Your task to perform on an android device: turn notification dots off Image 0: 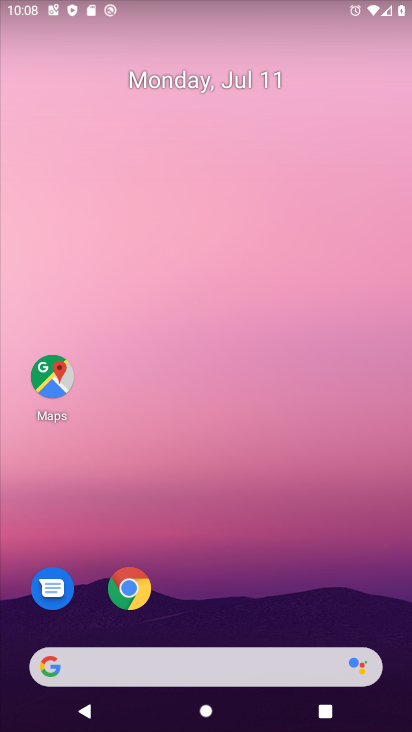
Step 0: drag from (233, 435) to (304, 23)
Your task to perform on an android device: turn notification dots off Image 1: 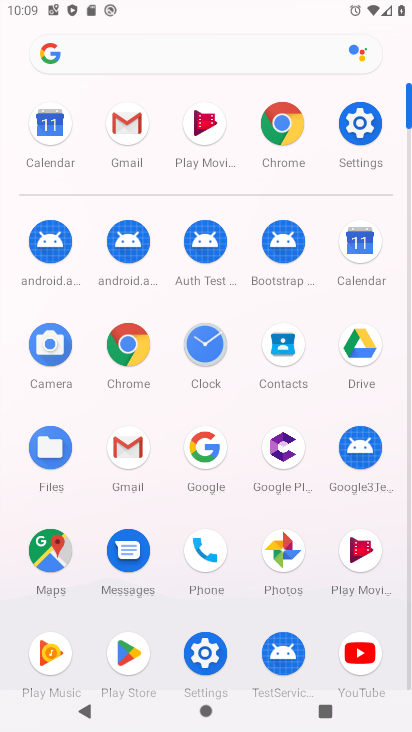
Step 1: click (355, 120)
Your task to perform on an android device: turn notification dots off Image 2: 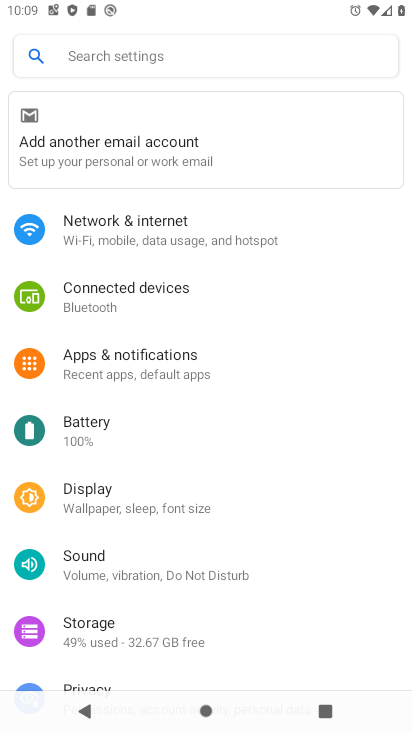
Step 2: click (160, 368)
Your task to perform on an android device: turn notification dots off Image 3: 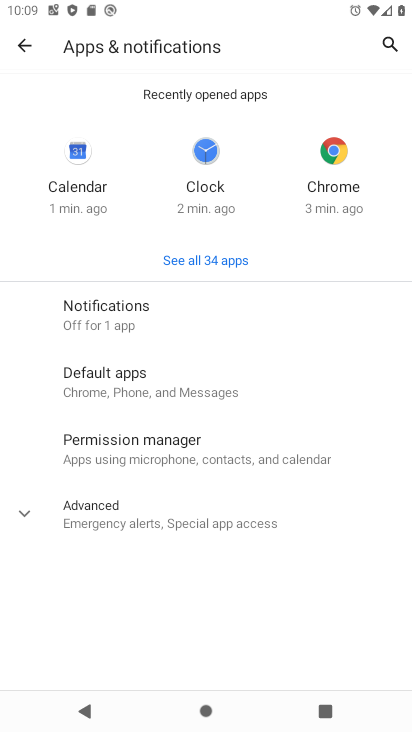
Step 3: click (154, 307)
Your task to perform on an android device: turn notification dots off Image 4: 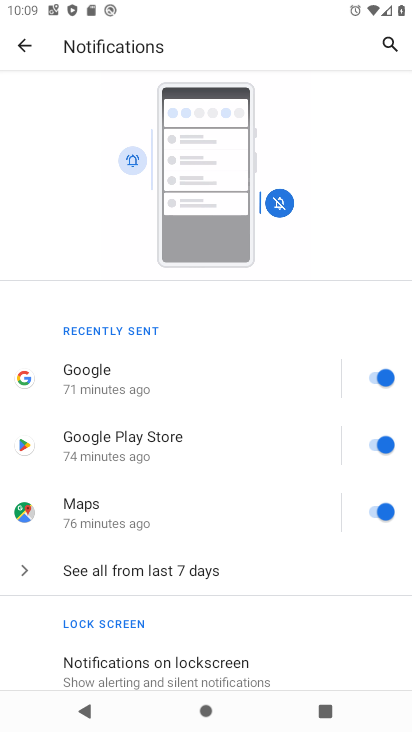
Step 4: drag from (166, 674) to (193, 172)
Your task to perform on an android device: turn notification dots off Image 5: 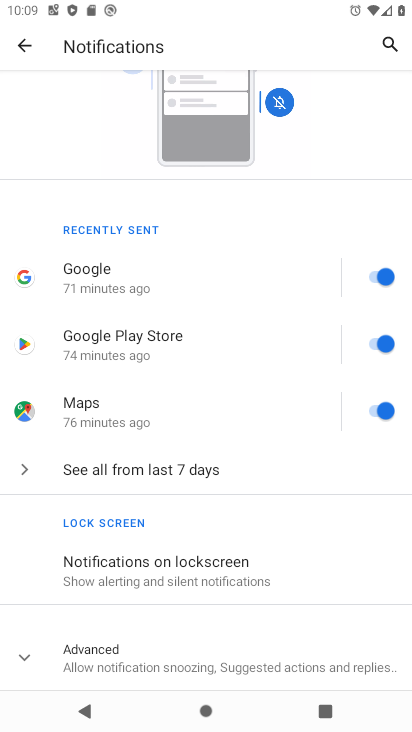
Step 5: click (108, 641)
Your task to perform on an android device: turn notification dots off Image 6: 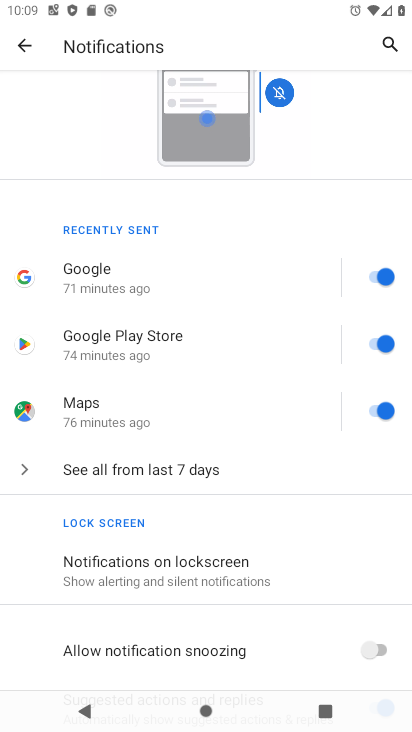
Step 6: task complete